Your task to perform on an android device: find which apps use the phone's location Image 0: 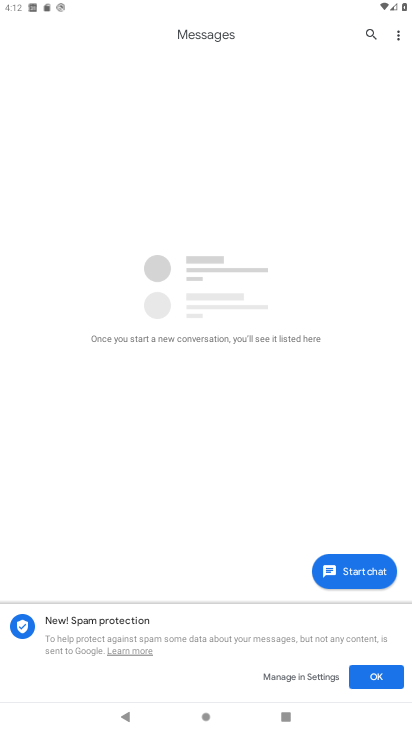
Step 0: press back button
Your task to perform on an android device: find which apps use the phone's location Image 1: 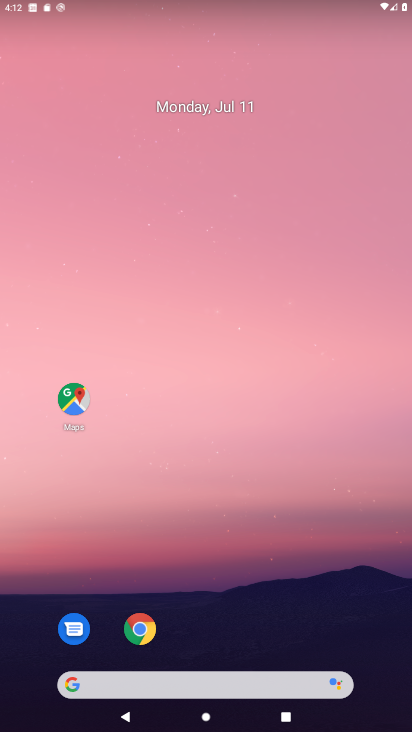
Step 1: drag from (362, 584) to (259, 75)
Your task to perform on an android device: find which apps use the phone's location Image 2: 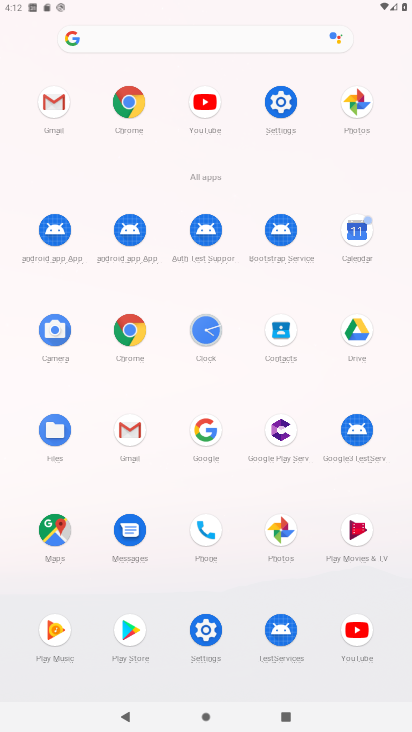
Step 2: click (274, 102)
Your task to perform on an android device: find which apps use the phone's location Image 3: 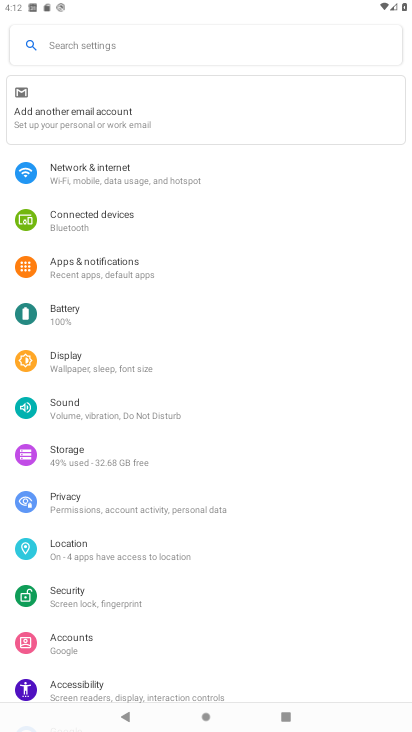
Step 3: click (69, 548)
Your task to perform on an android device: find which apps use the phone's location Image 4: 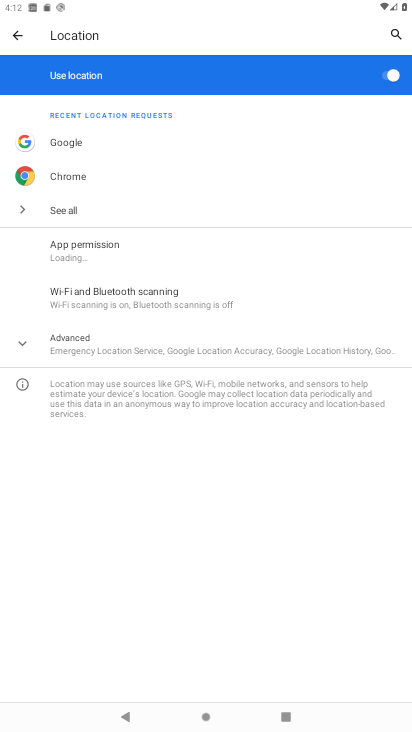
Step 4: click (56, 246)
Your task to perform on an android device: find which apps use the phone's location Image 5: 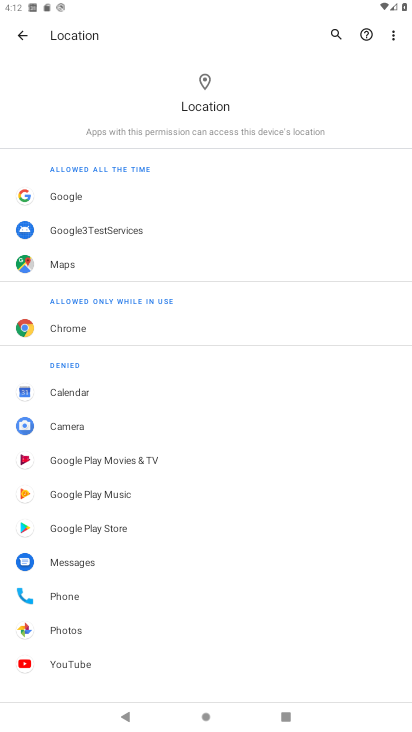
Step 5: task complete